Your task to perform on an android device: Open Google Maps Image 0: 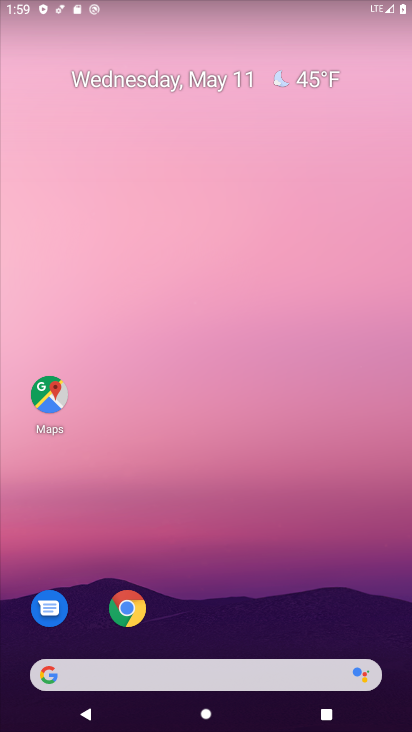
Step 0: click (49, 402)
Your task to perform on an android device: Open Google Maps Image 1: 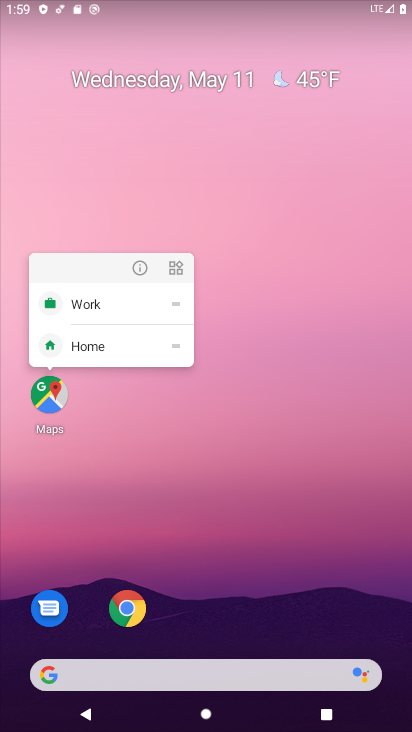
Step 1: click (49, 402)
Your task to perform on an android device: Open Google Maps Image 2: 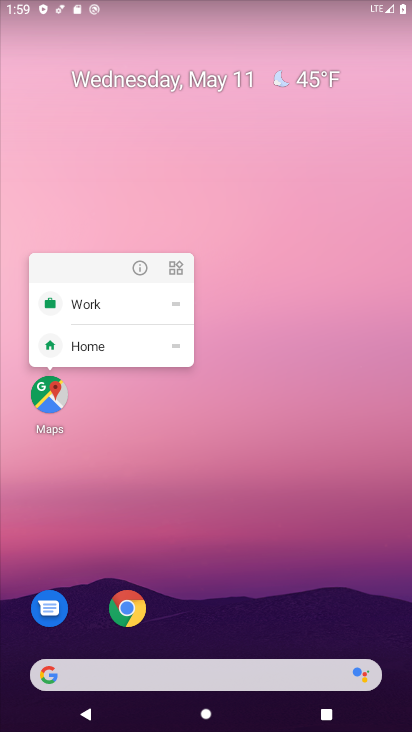
Step 2: click (49, 402)
Your task to perform on an android device: Open Google Maps Image 3: 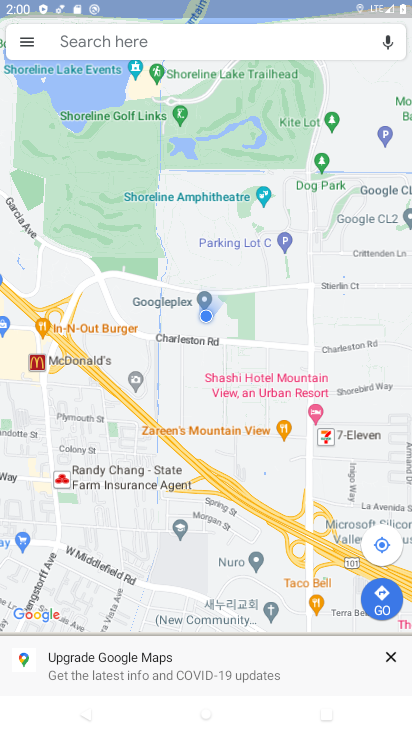
Step 3: task complete